Your task to perform on an android device: open app "Messages" (install if not already installed) Image 0: 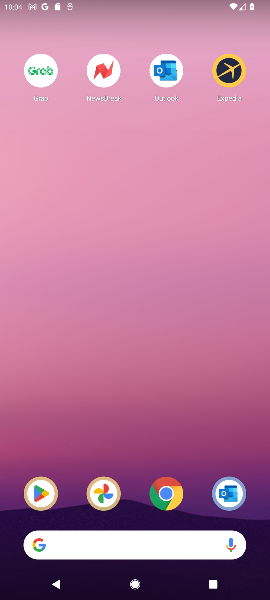
Step 0: drag from (140, 523) to (208, 5)
Your task to perform on an android device: open app "Messages" (install if not already installed) Image 1: 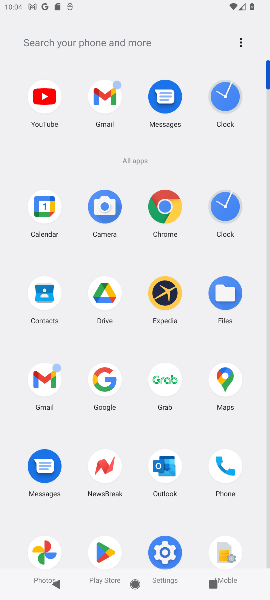
Step 1: press home button
Your task to perform on an android device: open app "Messages" (install if not already installed) Image 2: 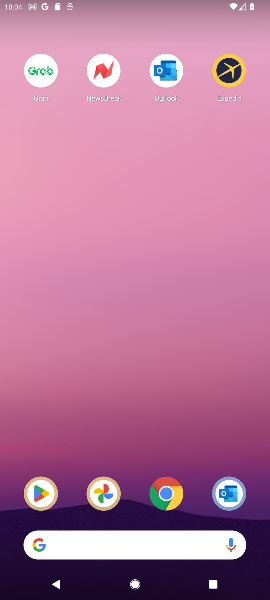
Step 2: drag from (134, 512) to (131, 84)
Your task to perform on an android device: open app "Messages" (install if not already installed) Image 3: 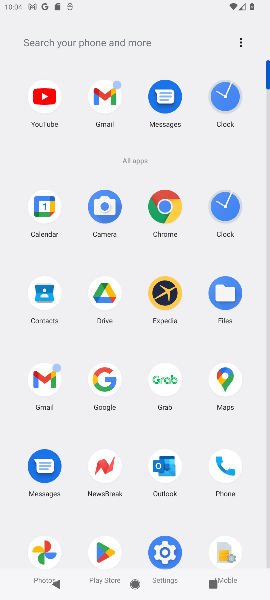
Step 3: click (36, 477)
Your task to perform on an android device: open app "Messages" (install if not already installed) Image 4: 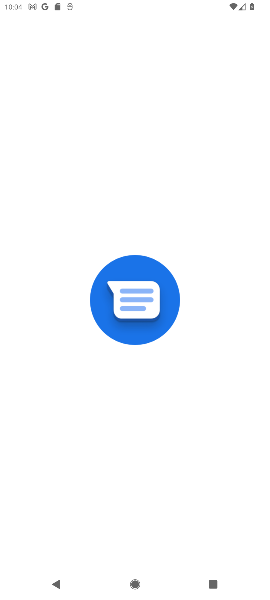
Step 4: task complete